Your task to perform on an android device: Open Amazon Image 0: 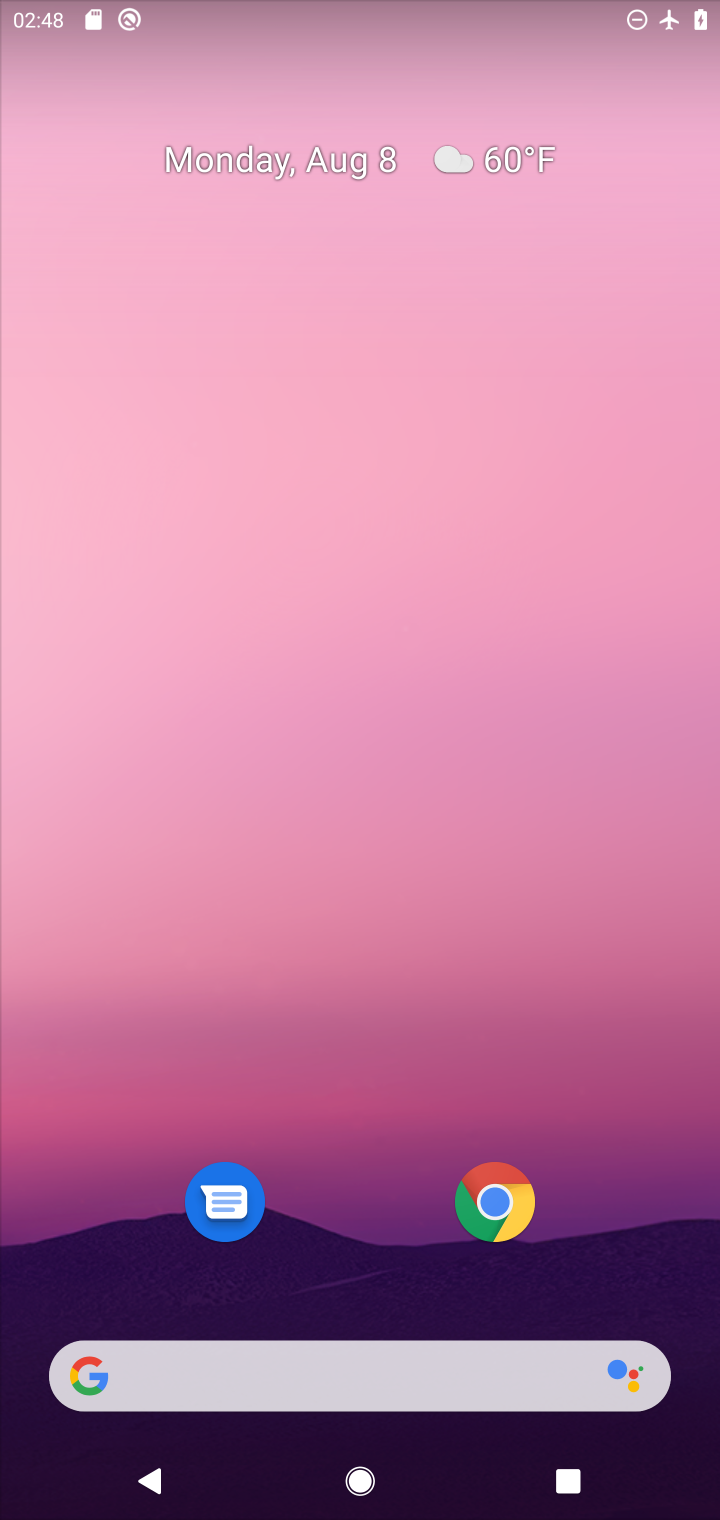
Step 0: press home button
Your task to perform on an android device: Open Amazon Image 1: 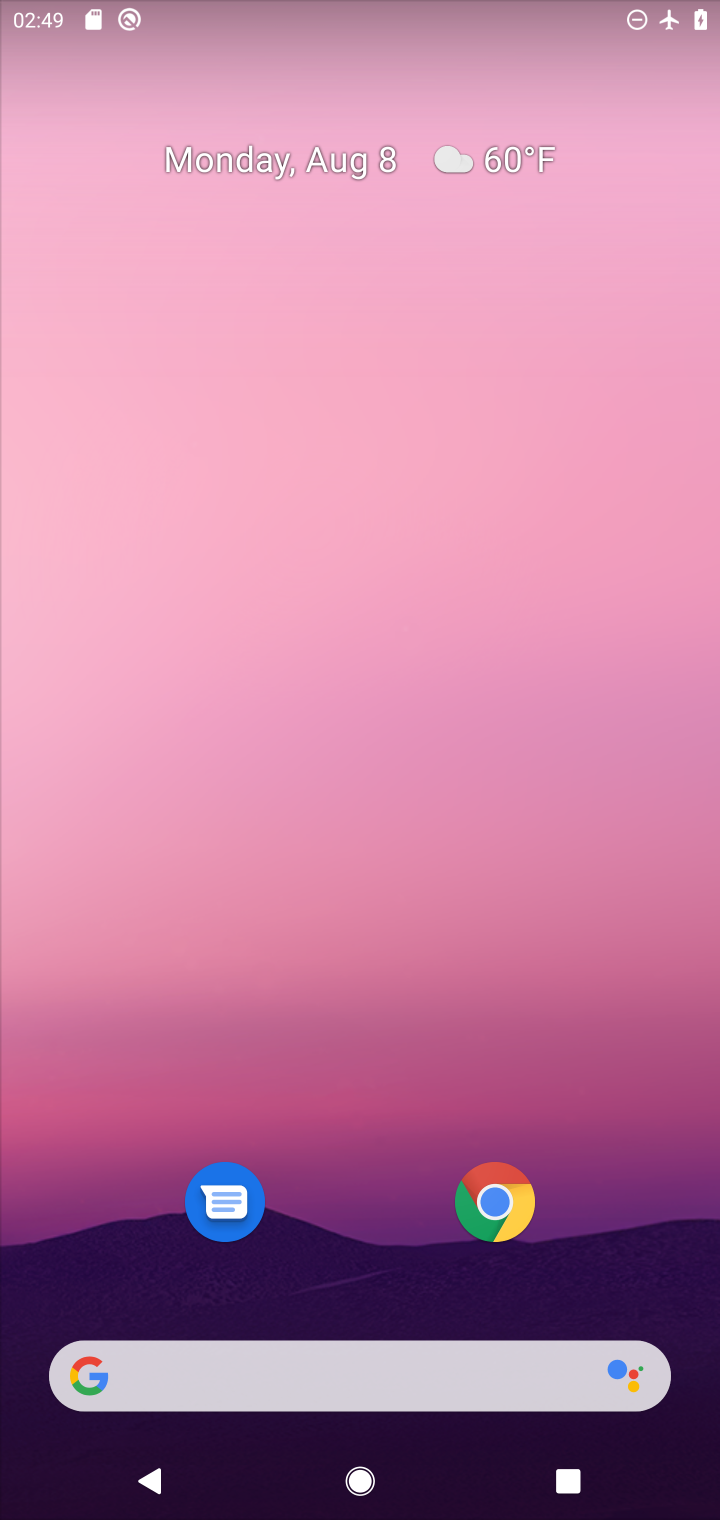
Step 1: drag from (388, 1137) to (443, 488)
Your task to perform on an android device: Open Amazon Image 2: 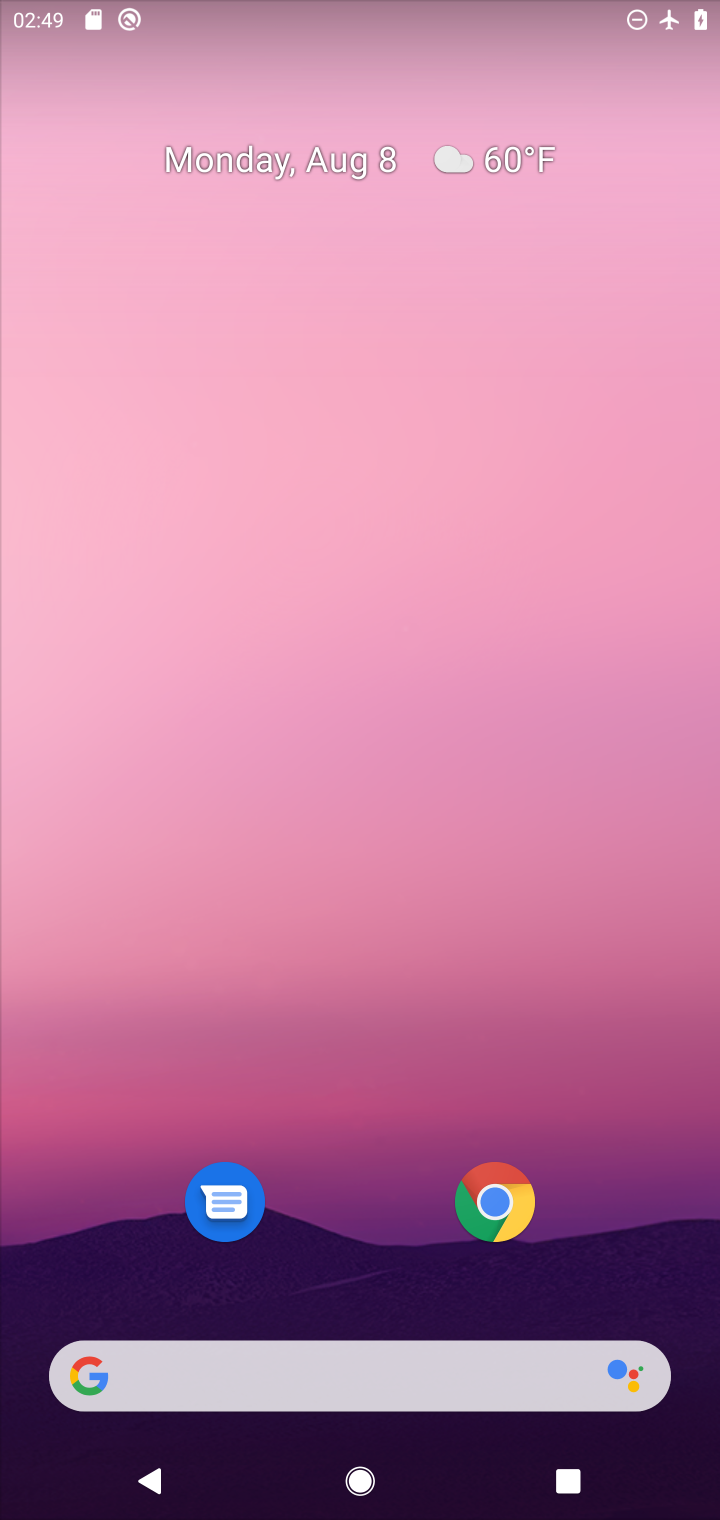
Step 2: drag from (615, 958) to (582, 447)
Your task to perform on an android device: Open Amazon Image 3: 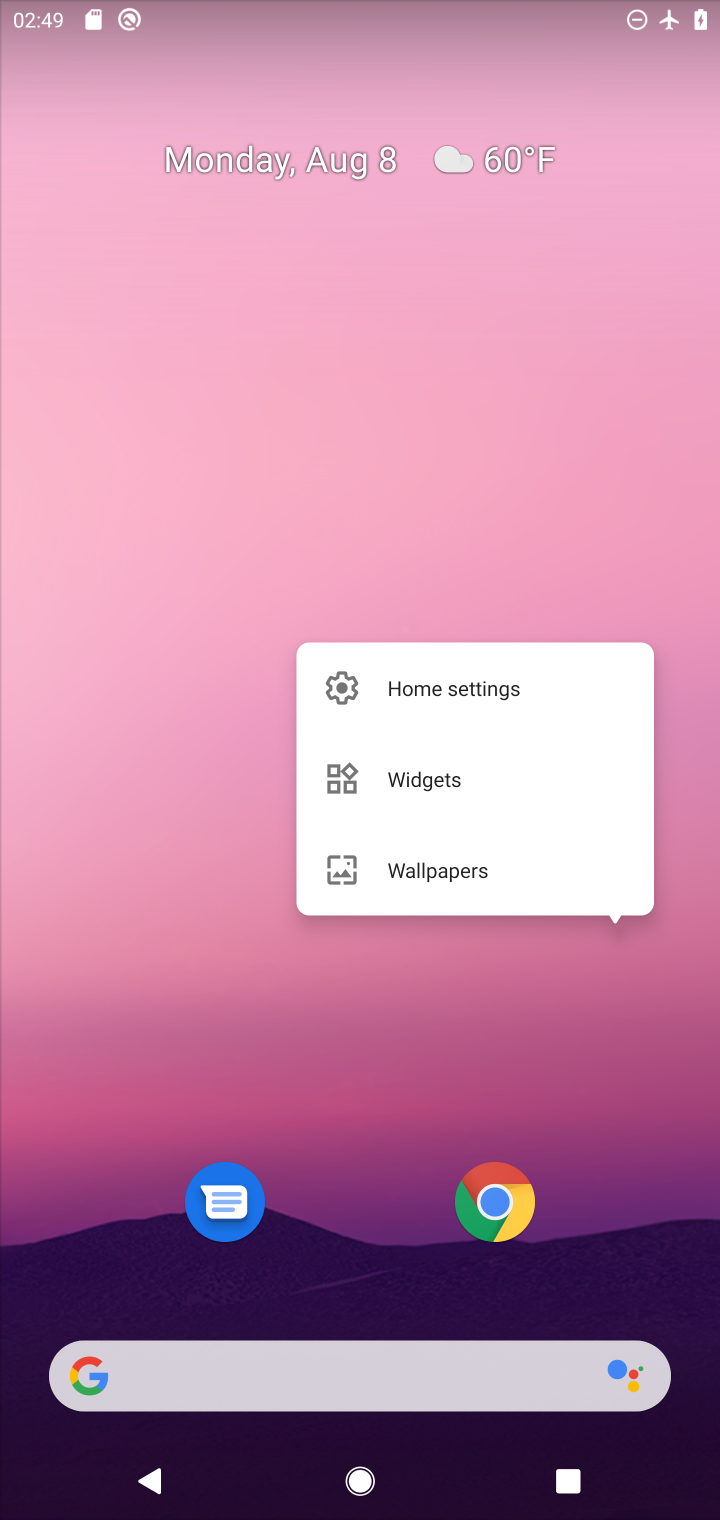
Step 3: click (607, 1159)
Your task to perform on an android device: Open Amazon Image 4: 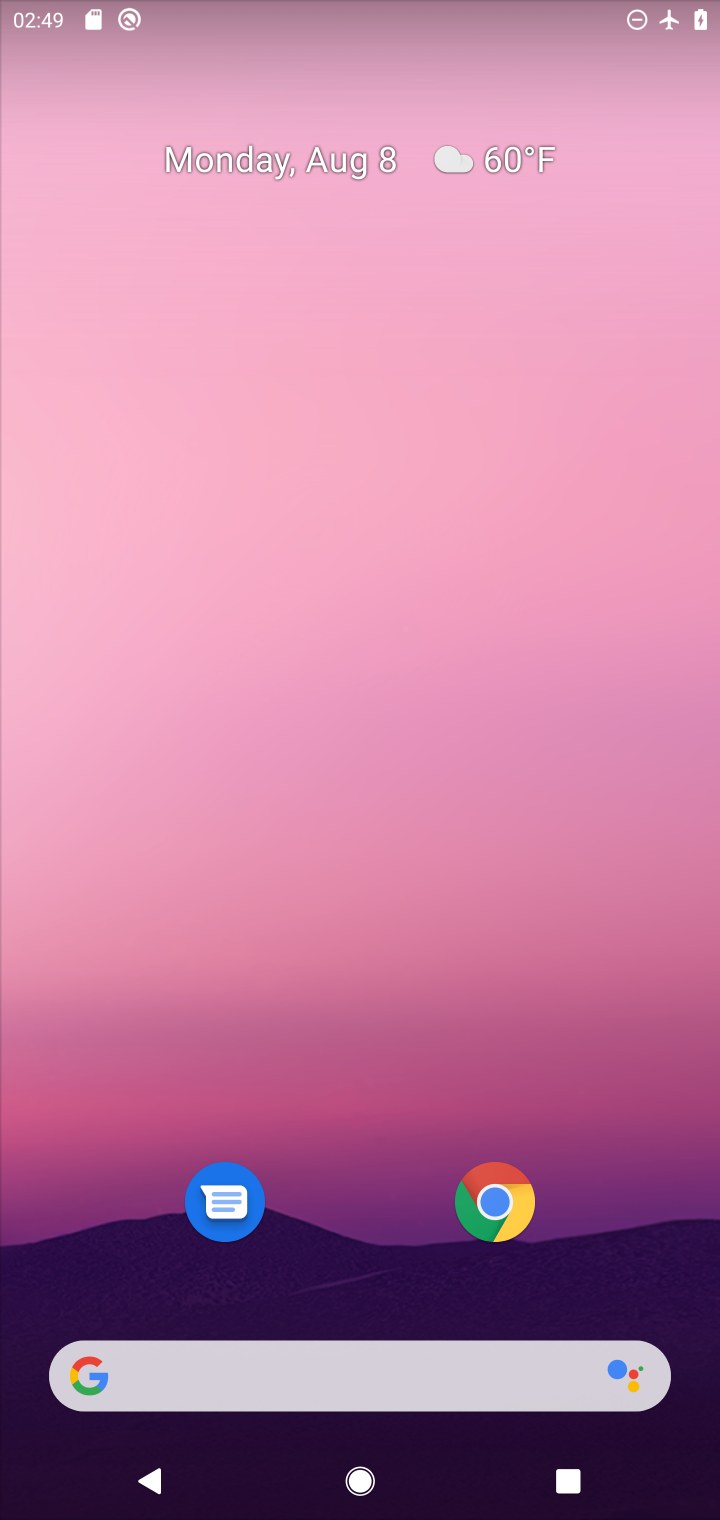
Step 4: drag from (405, 667) to (440, 152)
Your task to perform on an android device: Open Amazon Image 5: 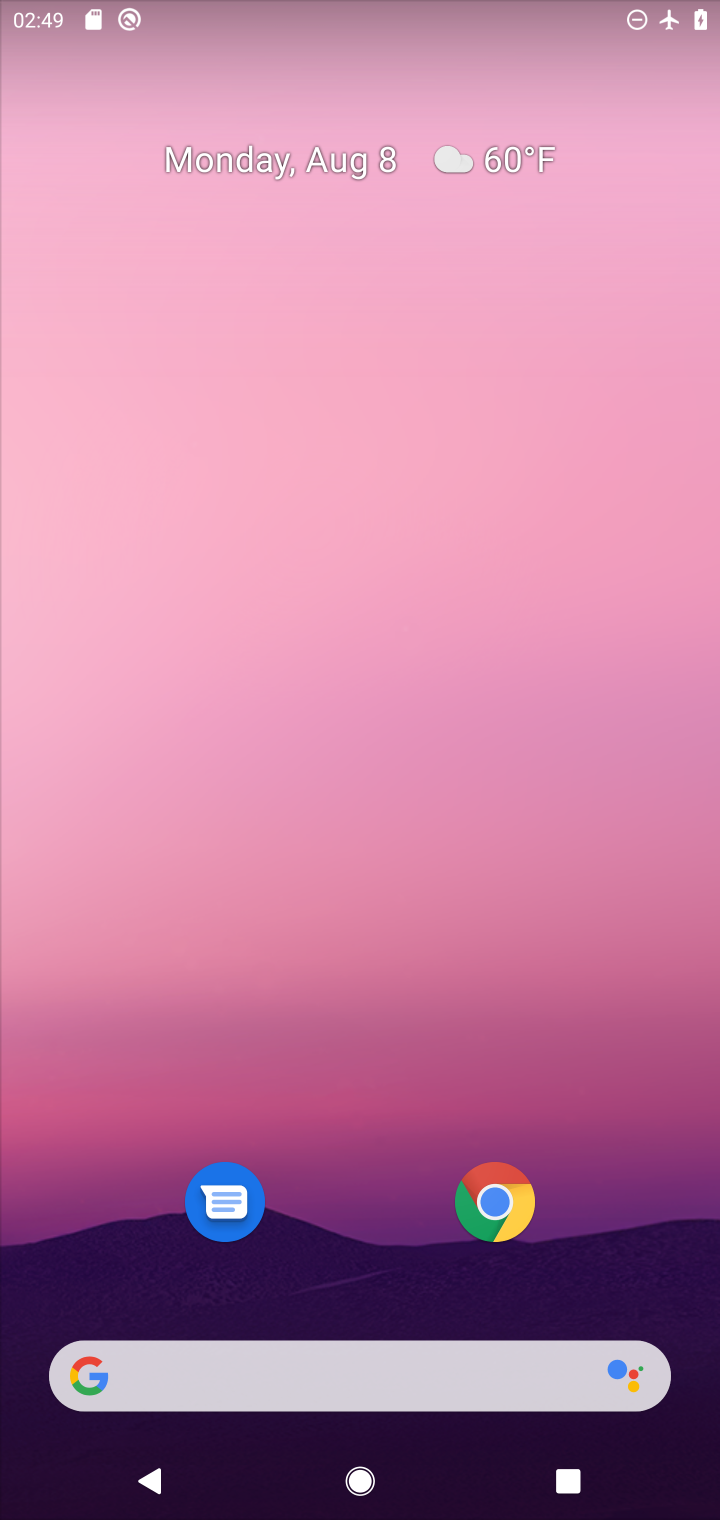
Step 5: drag from (618, 1242) to (589, 67)
Your task to perform on an android device: Open Amazon Image 6: 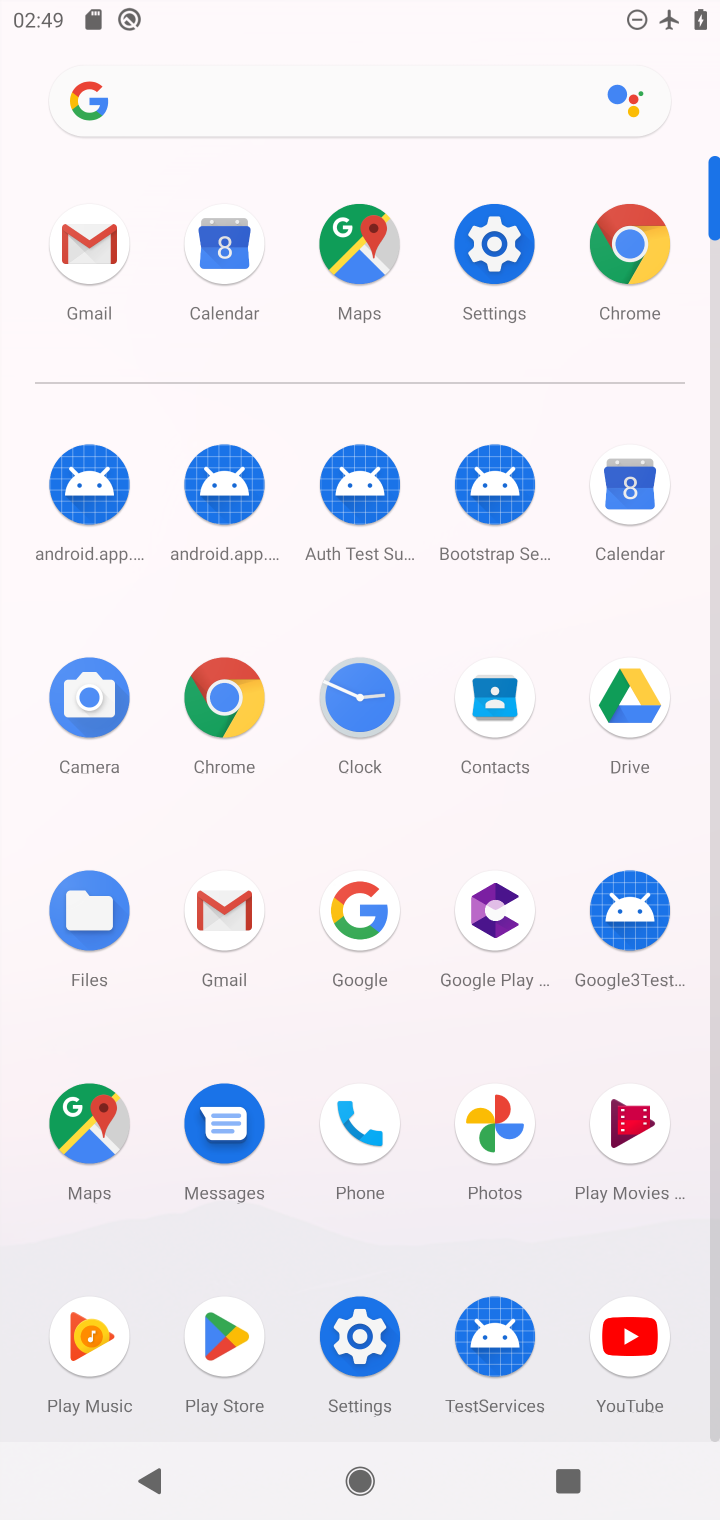
Step 6: click (237, 694)
Your task to perform on an android device: Open Amazon Image 7: 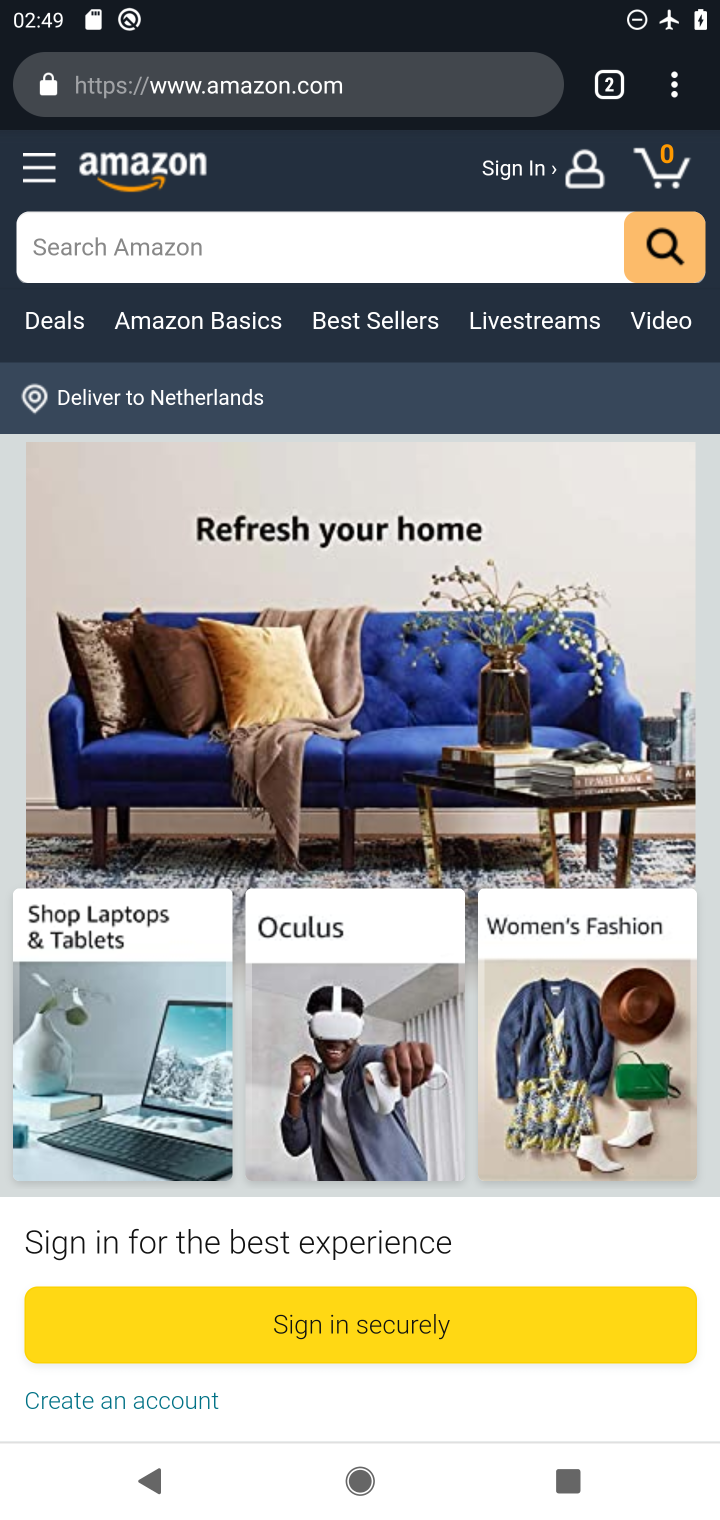
Step 7: task complete